Your task to perform on an android device: Show me the alarms in the clock app Image 0: 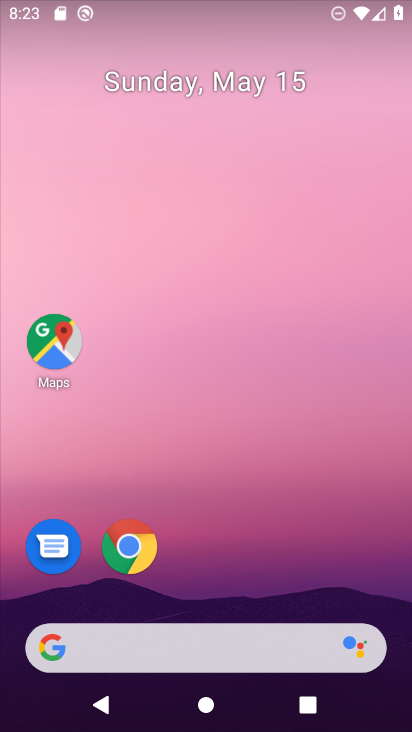
Step 0: drag from (245, 491) to (214, 60)
Your task to perform on an android device: Show me the alarms in the clock app Image 1: 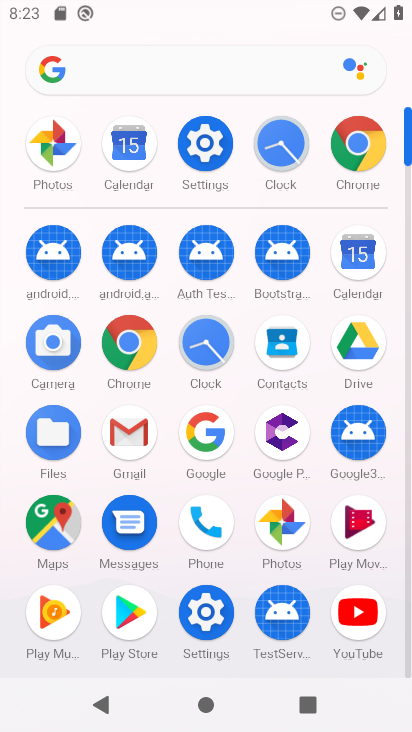
Step 1: click (278, 141)
Your task to perform on an android device: Show me the alarms in the clock app Image 2: 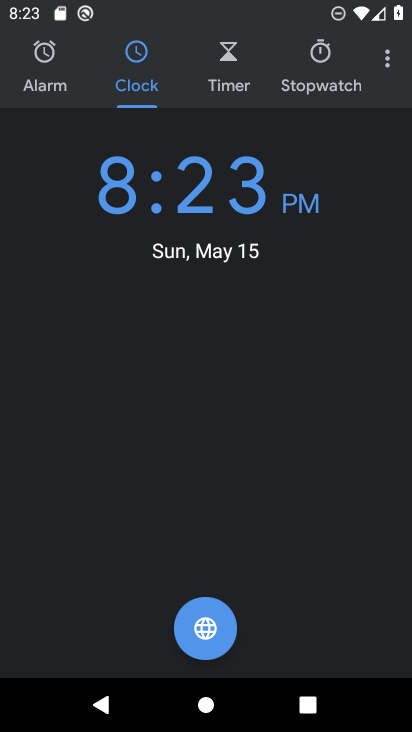
Step 2: click (49, 52)
Your task to perform on an android device: Show me the alarms in the clock app Image 3: 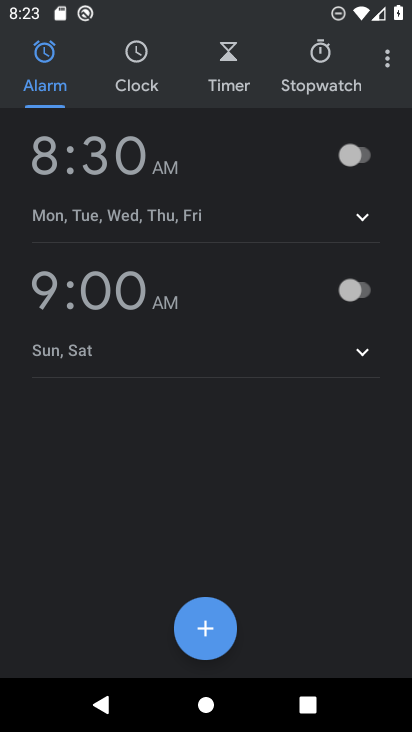
Step 3: task complete